Your task to perform on an android device: Go to Reddit.com Image 0: 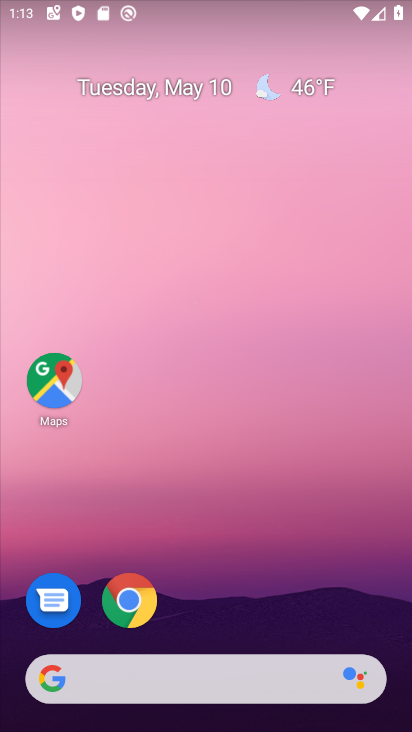
Step 0: click (130, 610)
Your task to perform on an android device: Go to Reddit.com Image 1: 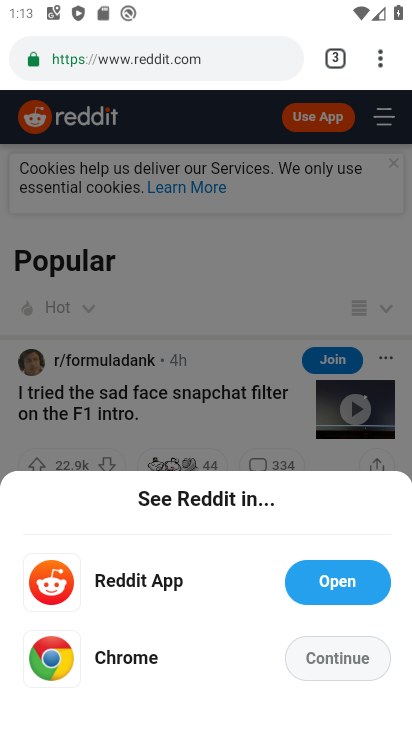
Step 1: task complete